Your task to perform on an android device: Show the shopping cart on target. Search for "usb-c to usb-a" on target, select the first entry, and add it to the cart. Image 0: 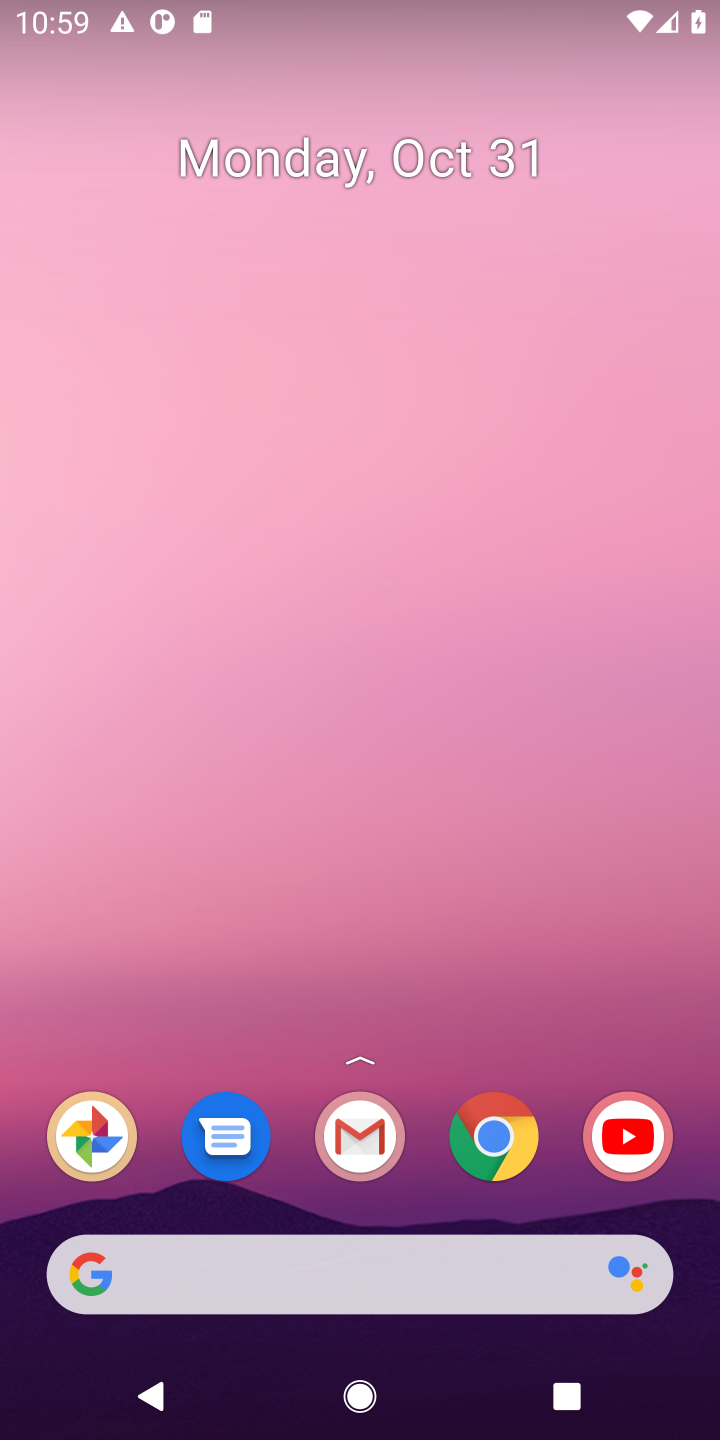
Step 0: press home button
Your task to perform on an android device: Show the shopping cart on target. Search for "usb-c to usb-a" on target, select the first entry, and add it to the cart. Image 1: 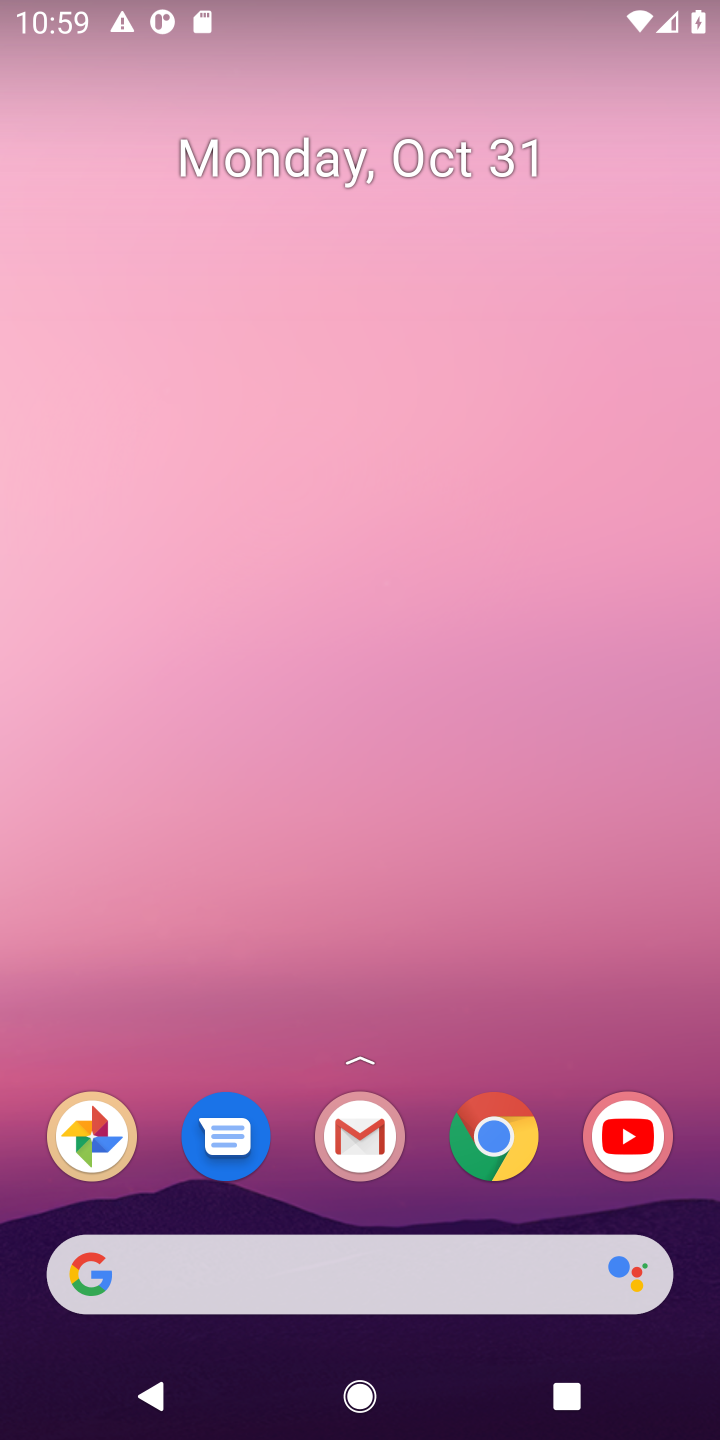
Step 1: click (119, 1282)
Your task to perform on an android device: Show the shopping cart on target. Search for "usb-c to usb-a" on target, select the first entry, and add it to the cart. Image 2: 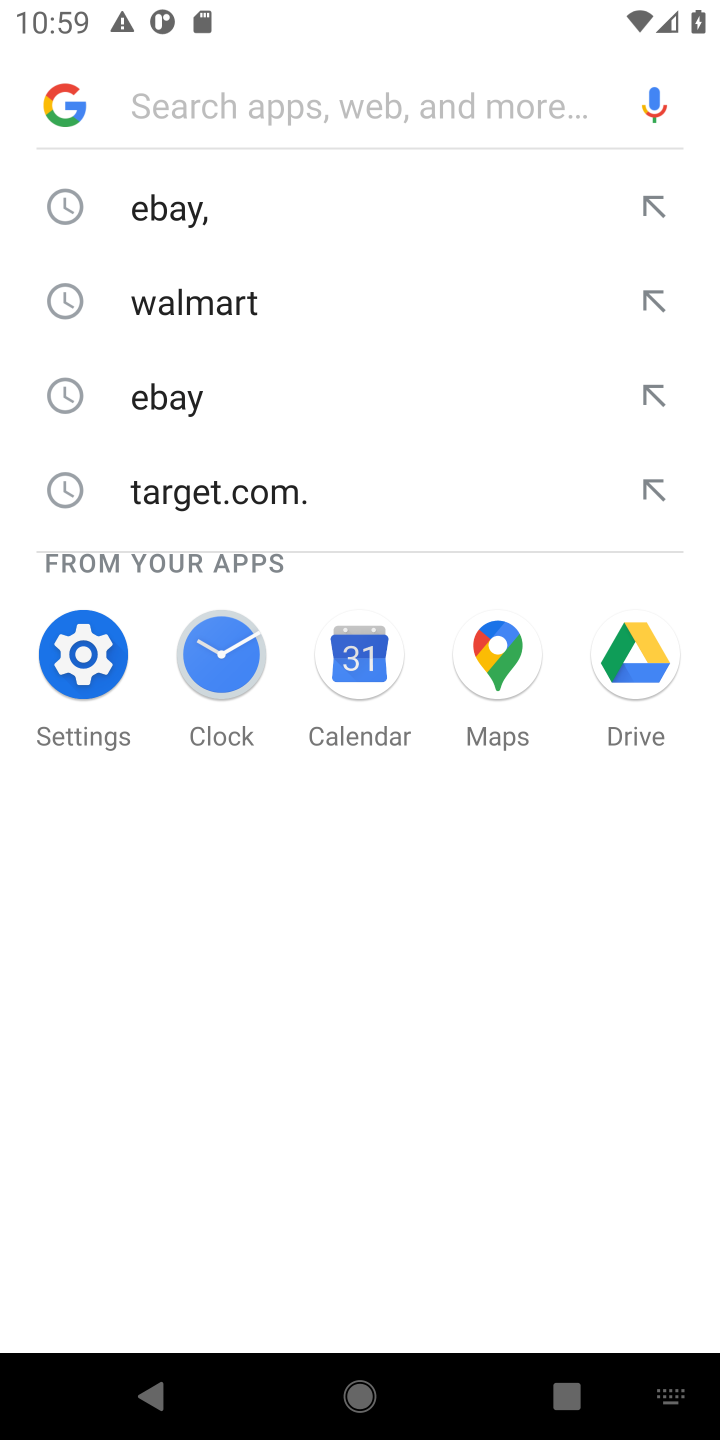
Step 2: type "target"
Your task to perform on an android device: Show the shopping cart on target. Search for "usb-c to usb-a" on target, select the first entry, and add it to the cart. Image 3: 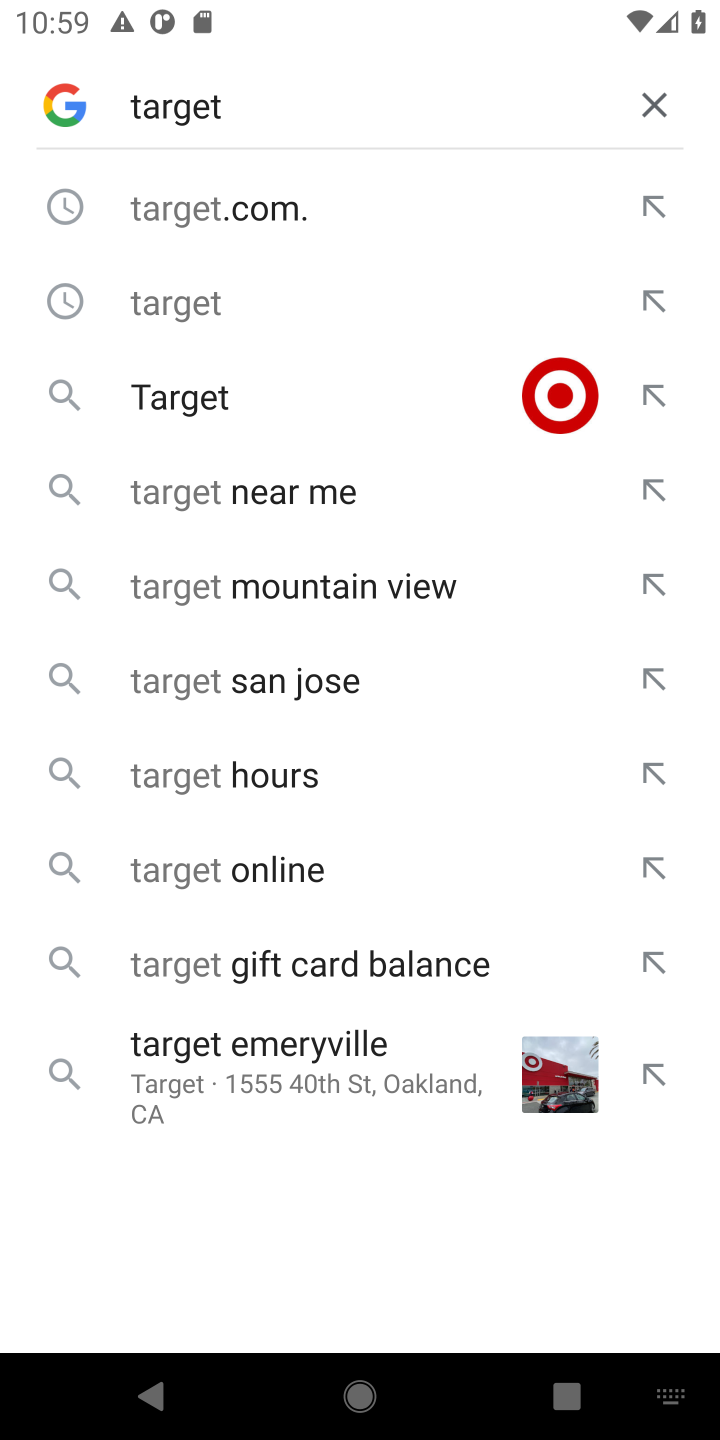
Step 3: press enter
Your task to perform on an android device: Show the shopping cart on target. Search for "usb-c to usb-a" on target, select the first entry, and add it to the cart. Image 4: 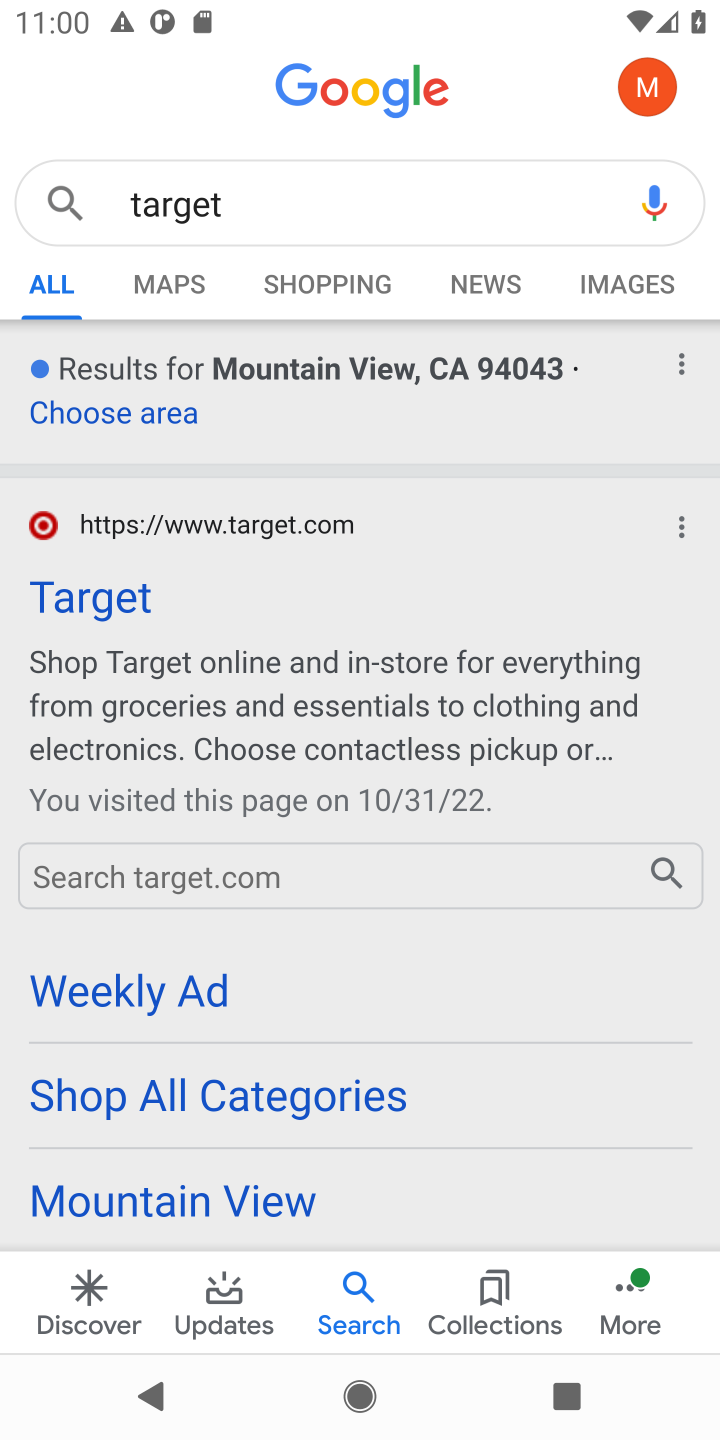
Step 4: click (95, 599)
Your task to perform on an android device: Show the shopping cart on target. Search for "usb-c to usb-a" on target, select the first entry, and add it to the cart. Image 5: 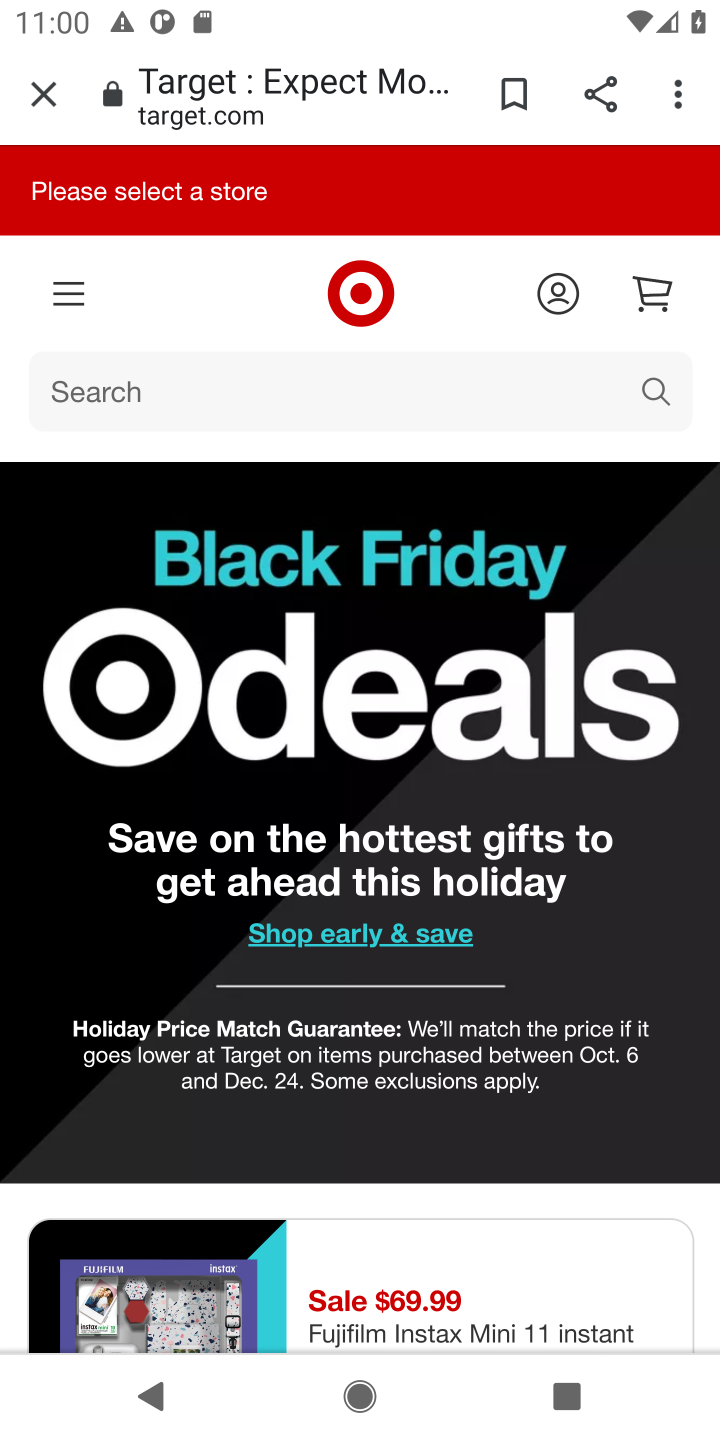
Step 5: click (664, 297)
Your task to perform on an android device: Show the shopping cart on target. Search for "usb-c to usb-a" on target, select the first entry, and add it to the cart. Image 6: 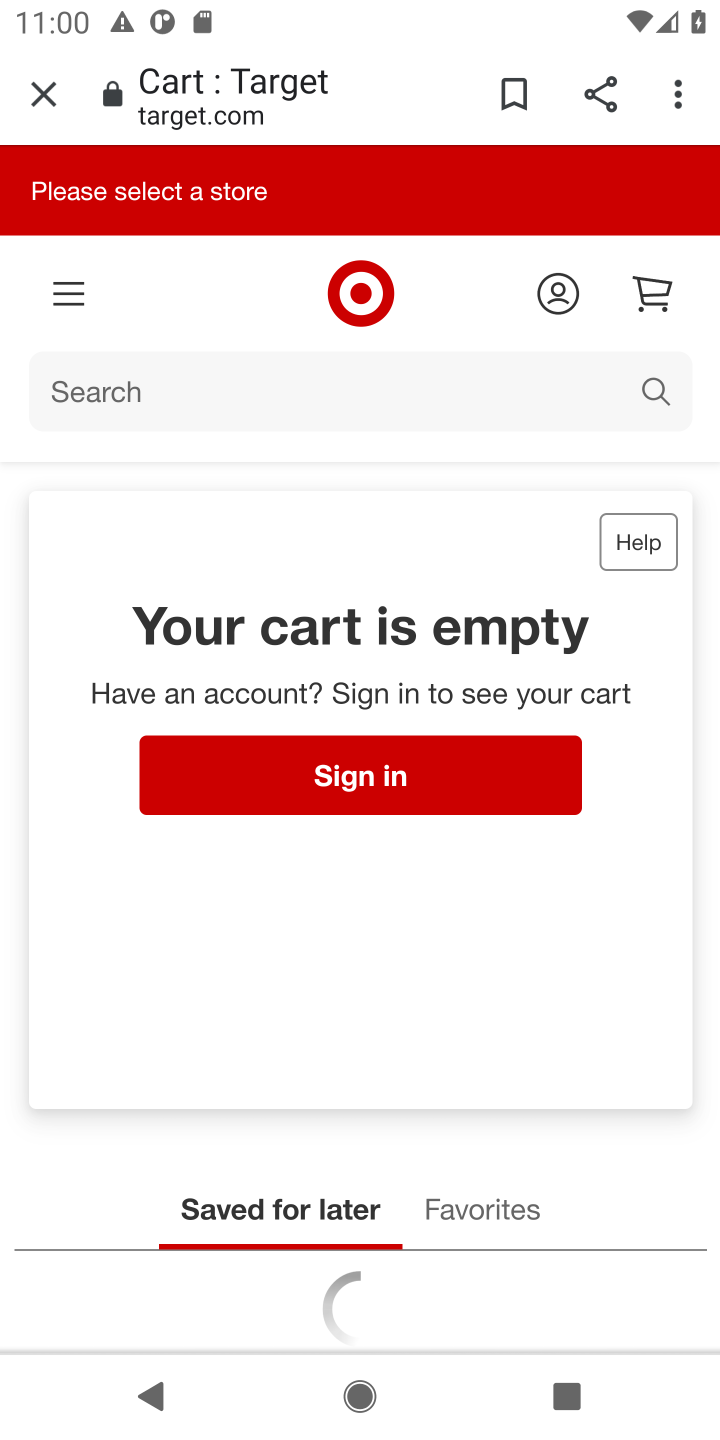
Step 6: click (78, 385)
Your task to perform on an android device: Show the shopping cart on target. Search for "usb-c to usb-a" on target, select the first entry, and add it to the cart. Image 7: 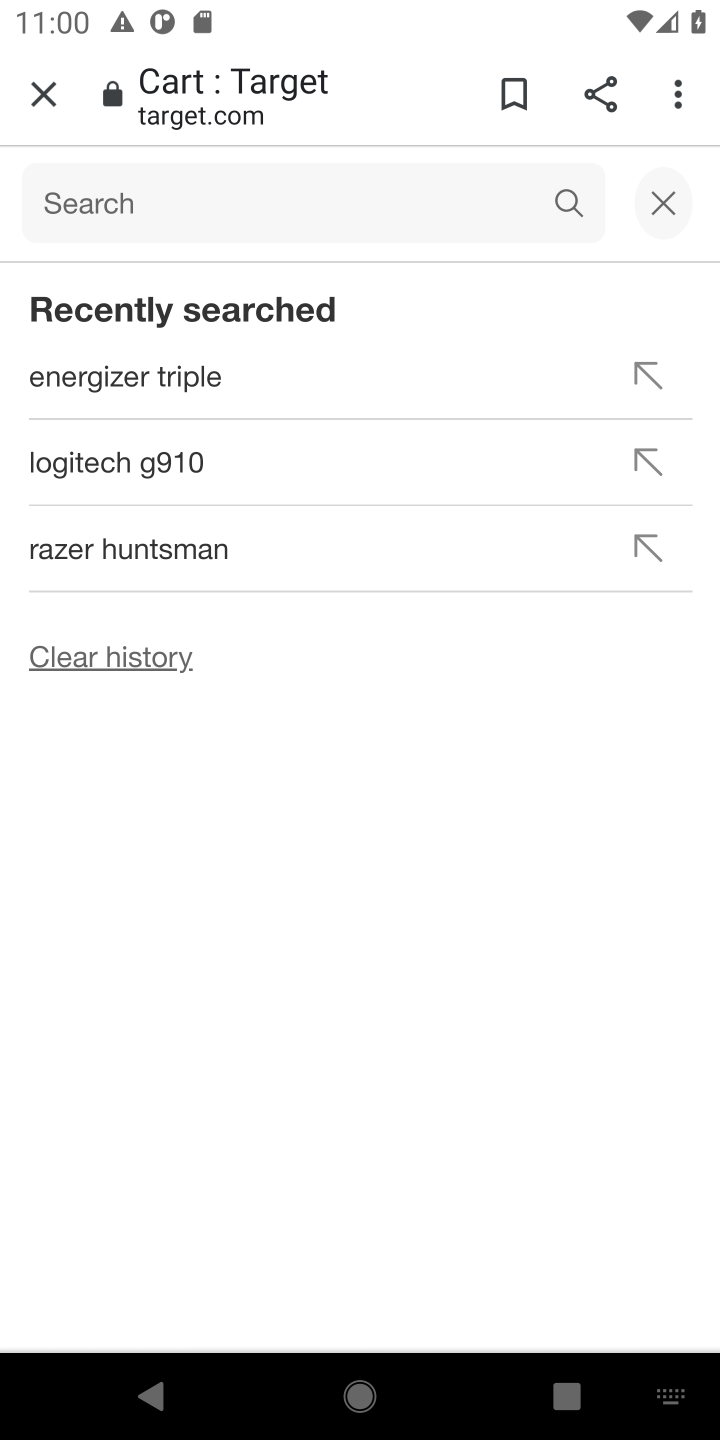
Step 7: type "usb-c to usb-a"
Your task to perform on an android device: Show the shopping cart on target. Search for "usb-c to usb-a" on target, select the first entry, and add it to the cart. Image 8: 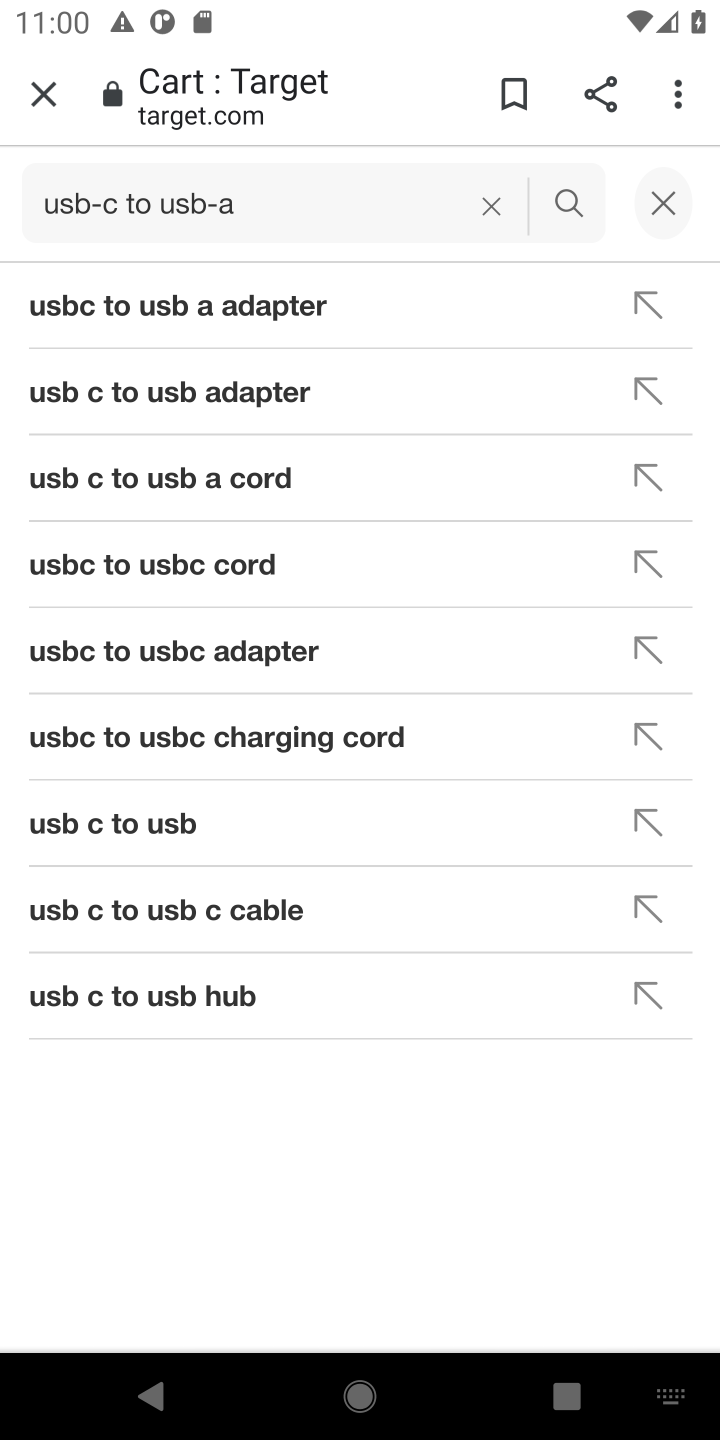
Step 8: click (567, 193)
Your task to perform on an android device: Show the shopping cart on target. Search for "usb-c to usb-a" on target, select the first entry, and add it to the cart. Image 9: 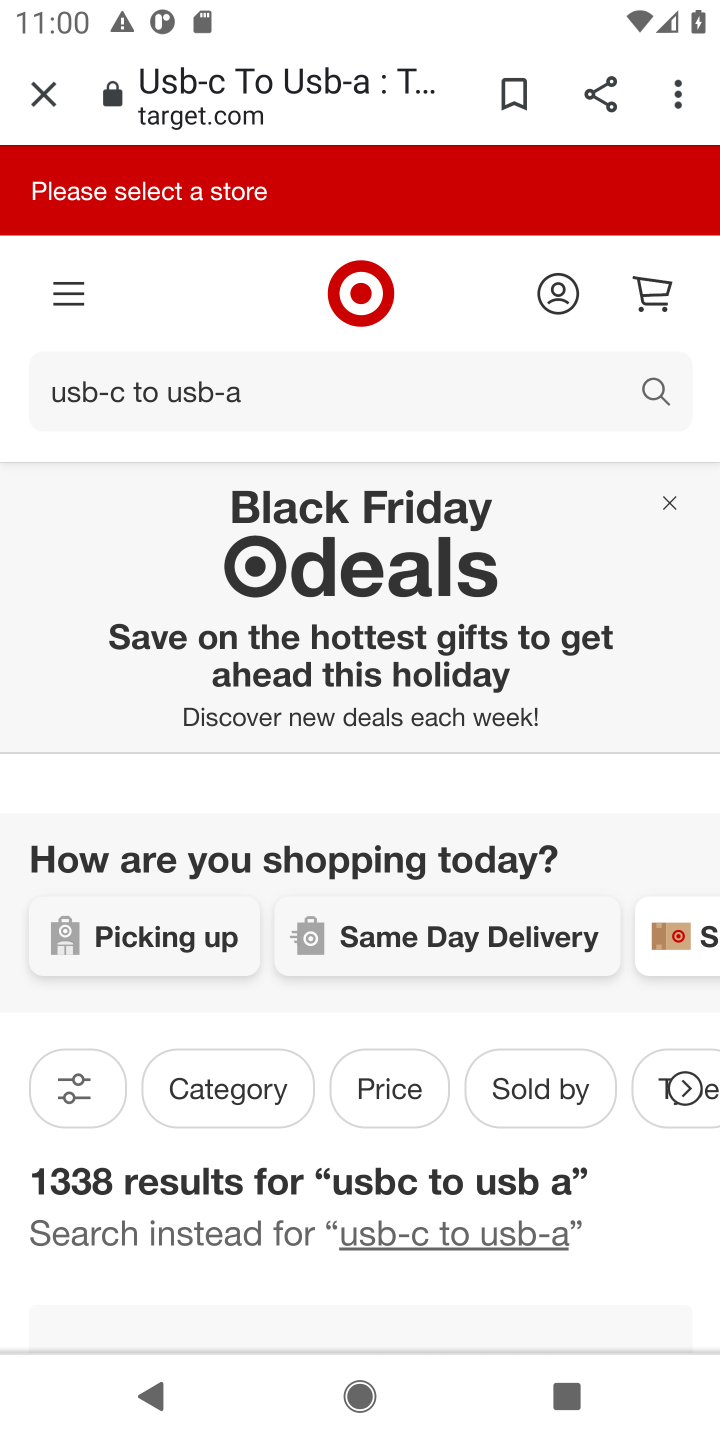
Step 9: drag from (372, 1177) to (377, 395)
Your task to perform on an android device: Show the shopping cart on target. Search for "usb-c to usb-a" on target, select the first entry, and add it to the cart. Image 10: 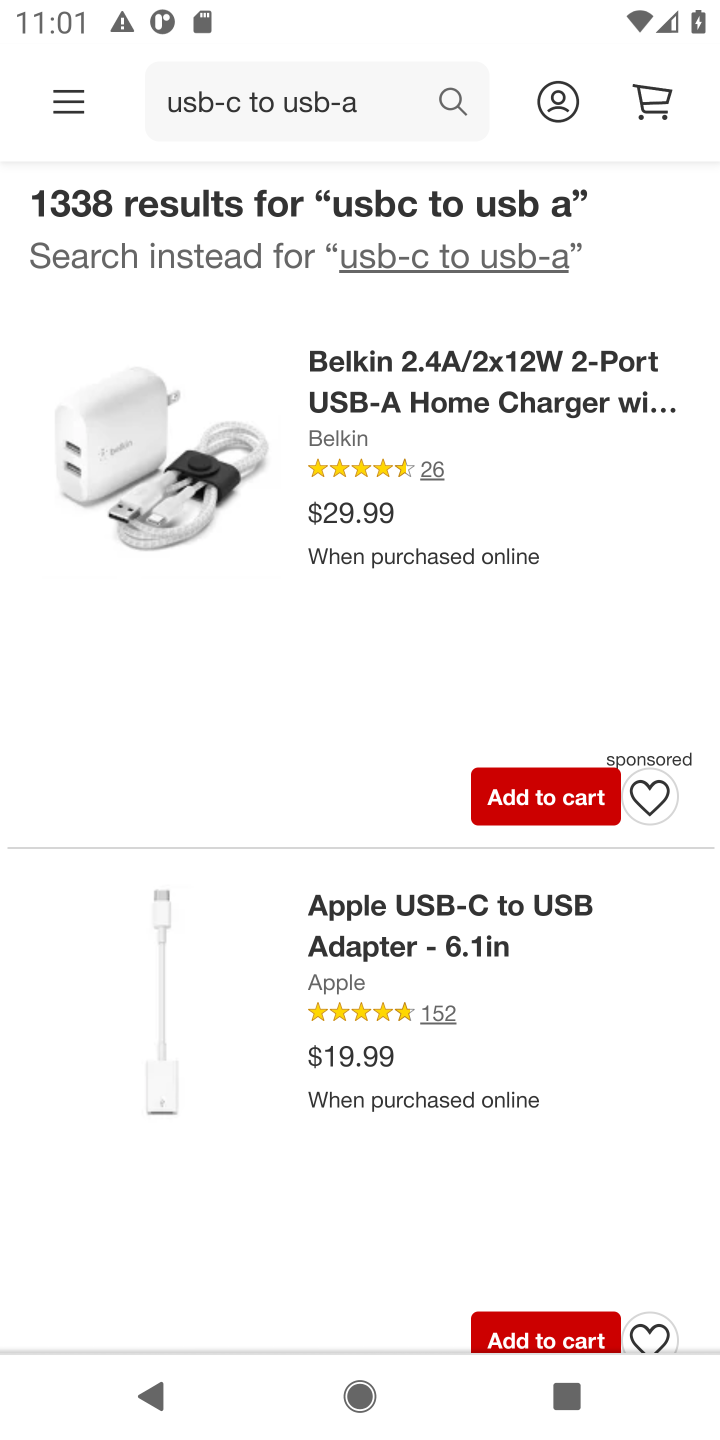
Step 10: drag from (287, 1042) to (301, 431)
Your task to perform on an android device: Show the shopping cart on target. Search for "usb-c to usb-a" on target, select the first entry, and add it to the cart. Image 11: 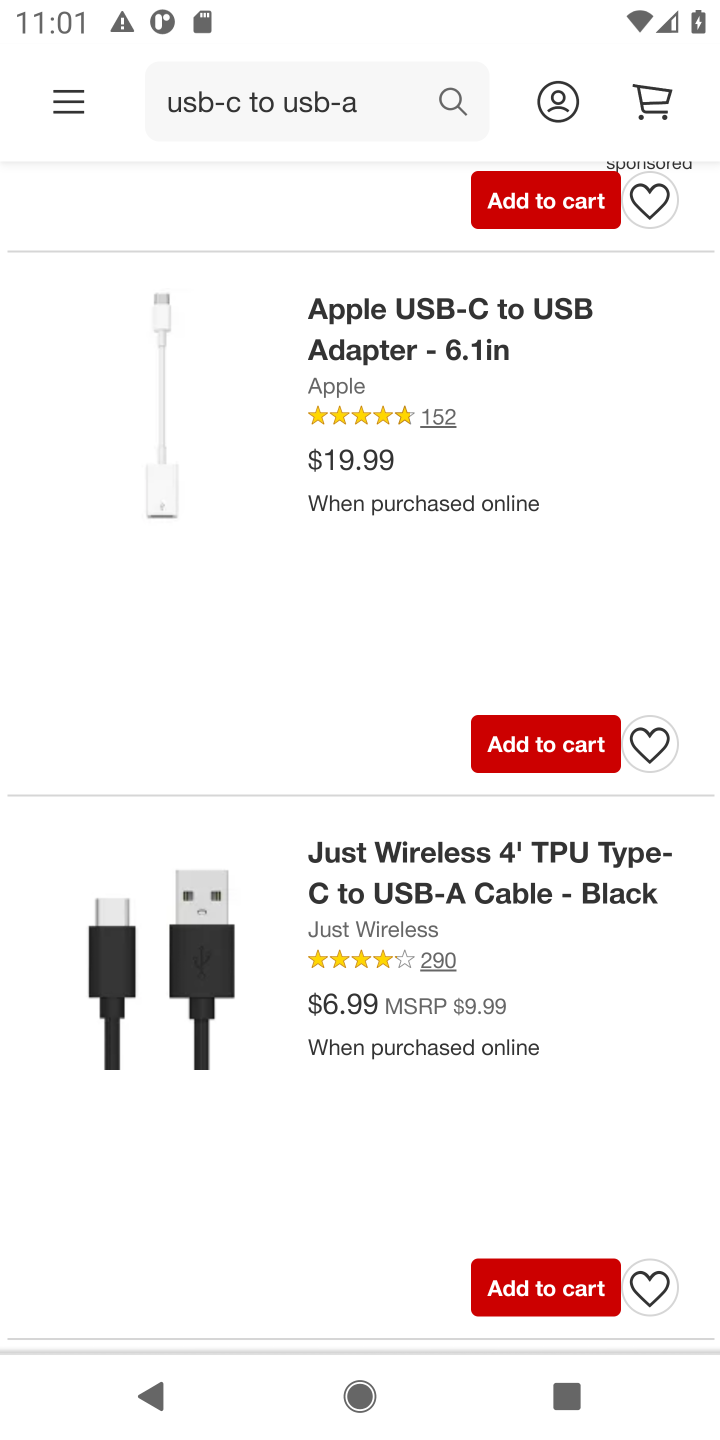
Step 11: drag from (297, 1064) to (303, 646)
Your task to perform on an android device: Show the shopping cart on target. Search for "usb-c to usb-a" on target, select the first entry, and add it to the cart. Image 12: 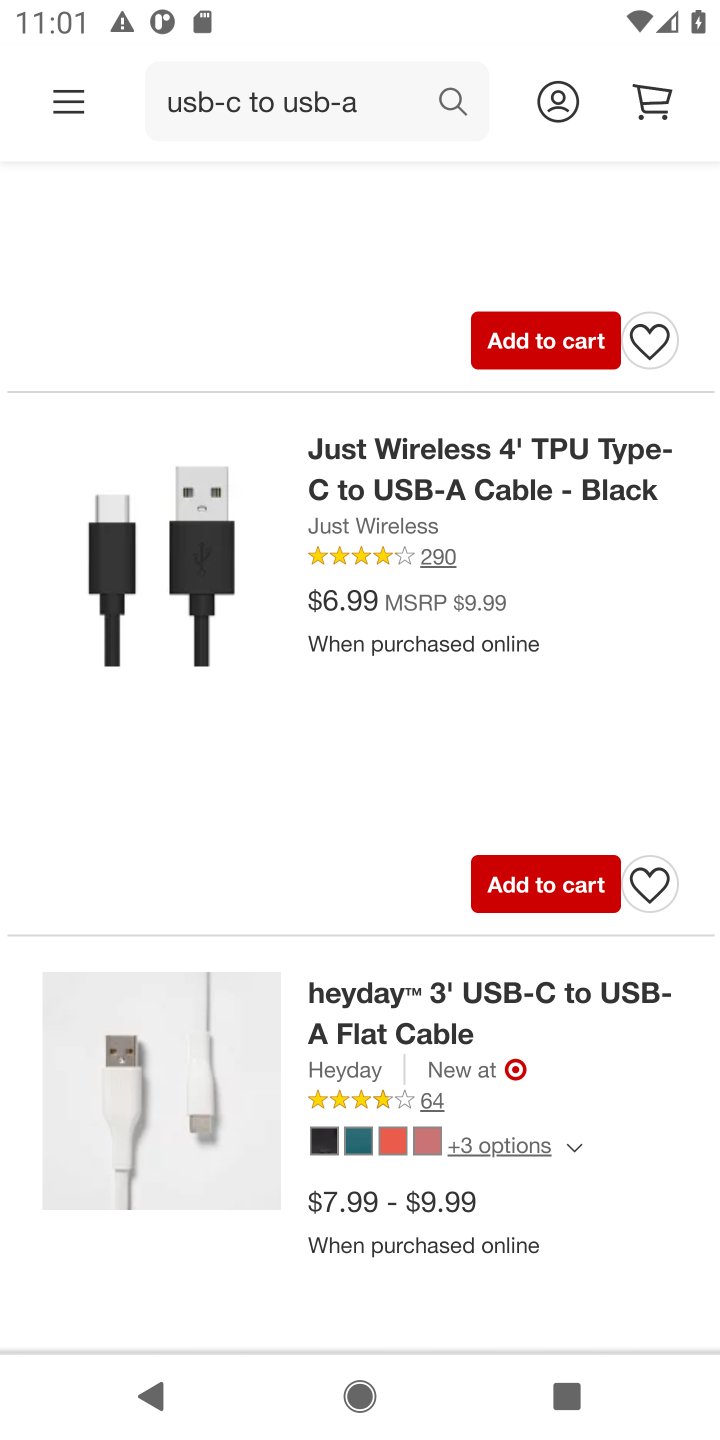
Step 12: click (517, 871)
Your task to perform on an android device: Show the shopping cart on target. Search for "usb-c to usb-a" on target, select the first entry, and add it to the cart. Image 13: 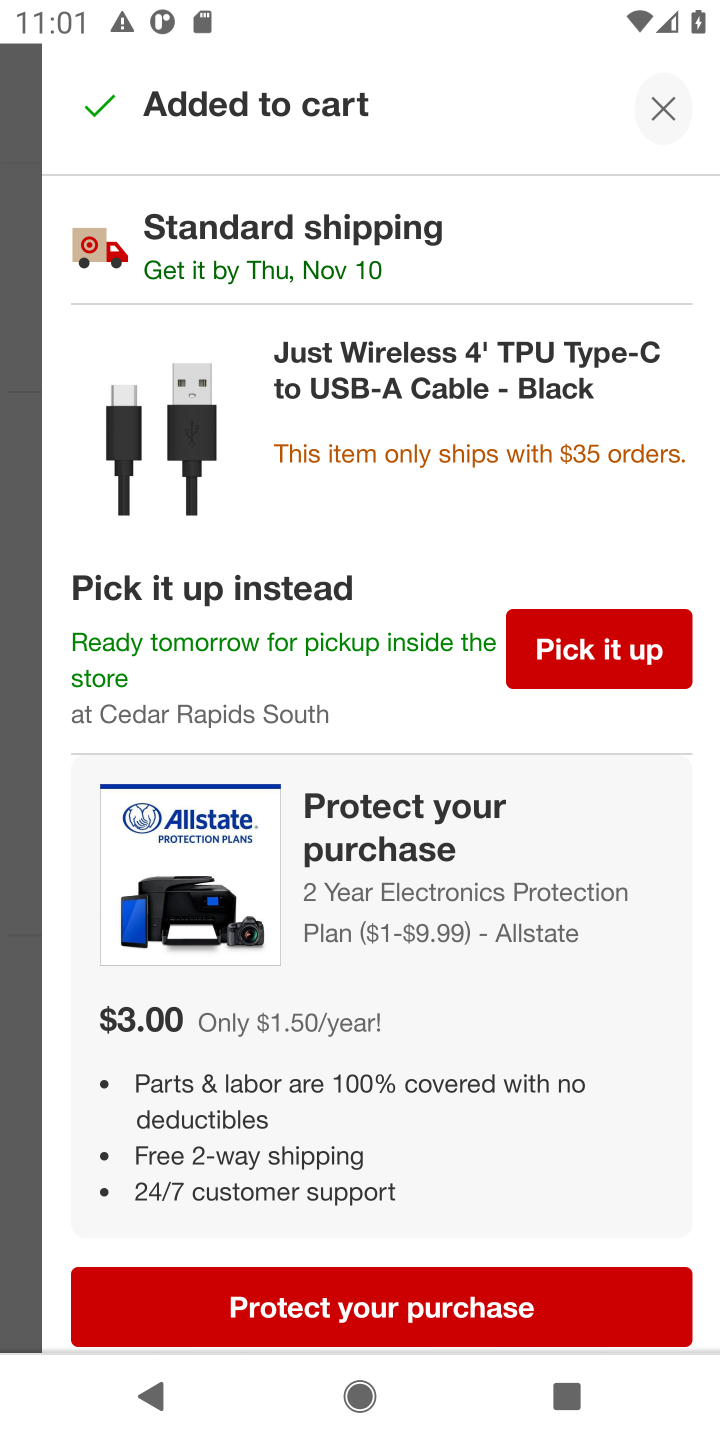
Step 13: task complete